Your task to perform on an android device: change notifications settings Image 0: 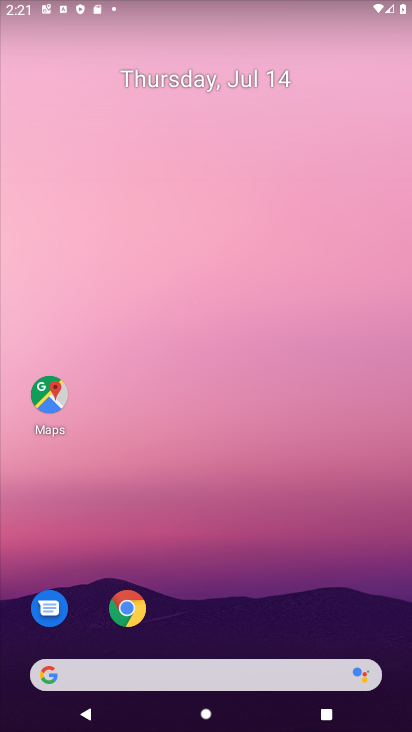
Step 0: drag from (371, 616) to (346, 69)
Your task to perform on an android device: change notifications settings Image 1: 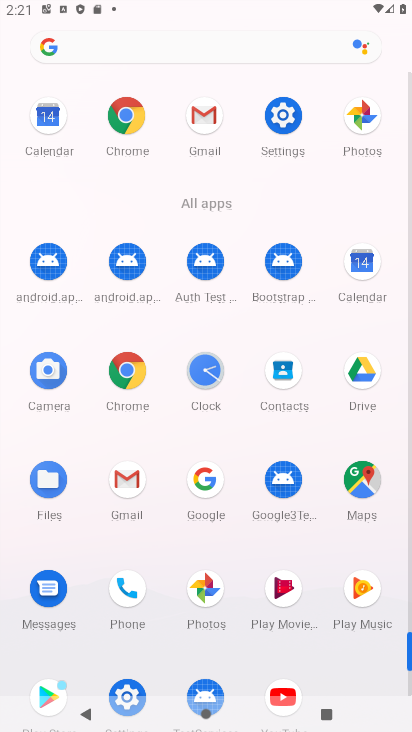
Step 1: click (411, 606)
Your task to perform on an android device: change notifications settings Image 2: 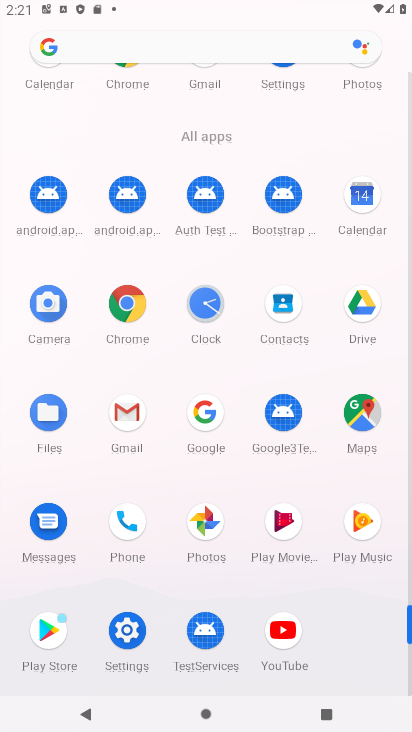
Step 2: click (125, 632)
Your task to perform on an android device: change notifications settings Image 3: 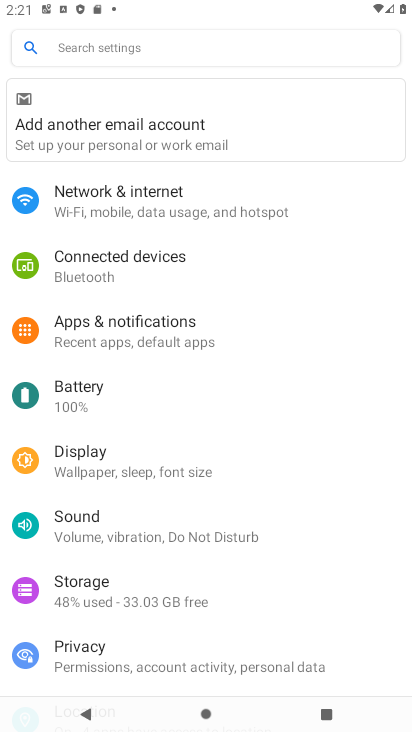
Step 3: click (123, 322)
Your task to perform on an android device: change notifications settings Image 4: 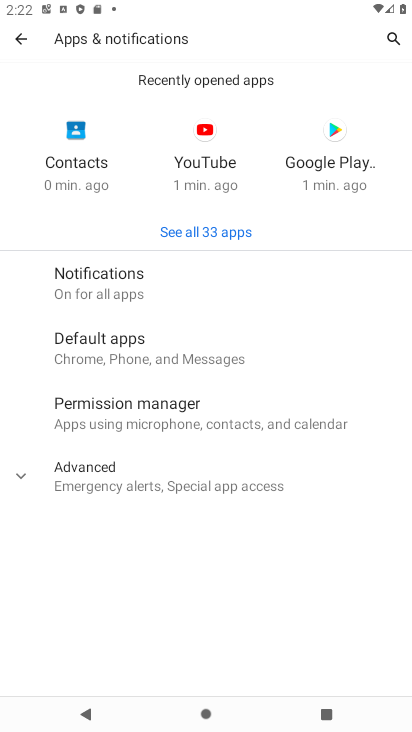
Step 4: click (111, 289)
Your task to perform on an android device: change notifications settings Image 5: 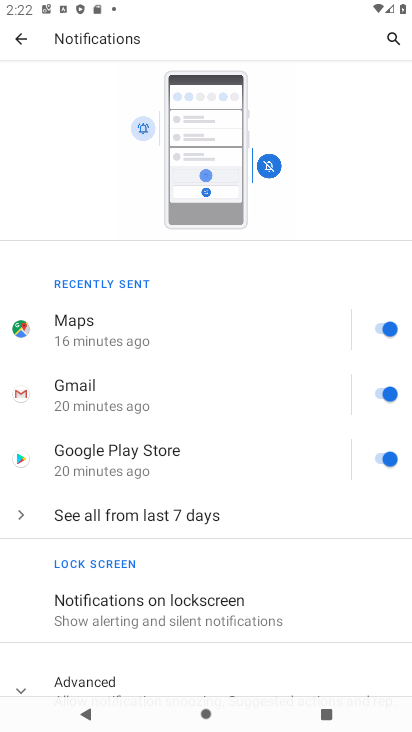
Step 5: drag from (292, 661) to (295, 182)
Your task to perform on an android device: change notifications settings Image 6: 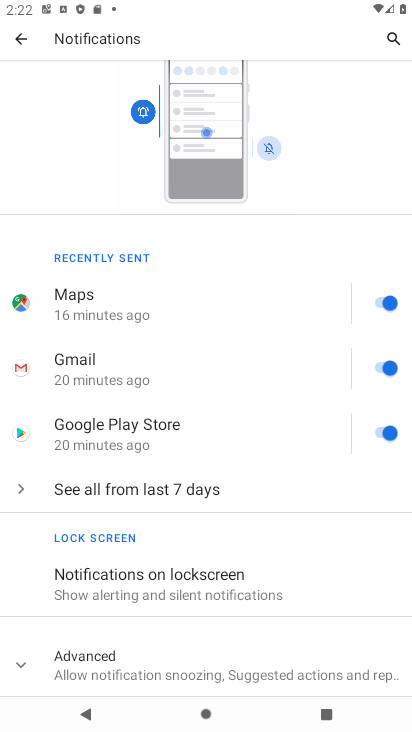
Step 6: click (4, 662)
Your task to perform on an android device: change notifications settings Image 7: 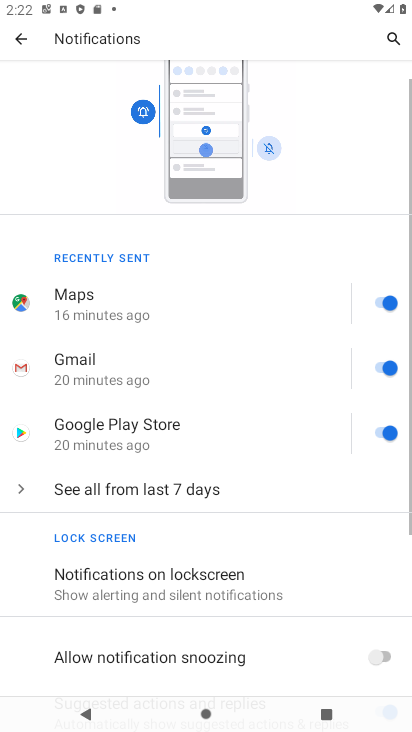
Step 7: drag from (245, 653) to (285, 238)
Your task to perform on an android device: change notifications settings Image 8: 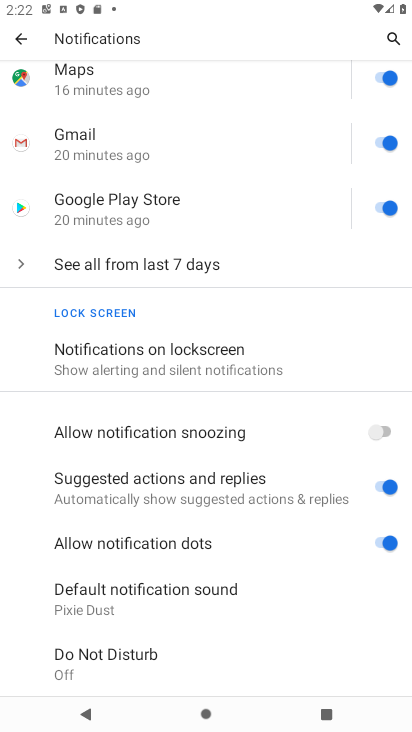
Step 8: click (374, 536)
Your task to perform on an android device: change notifications settings Image 9: 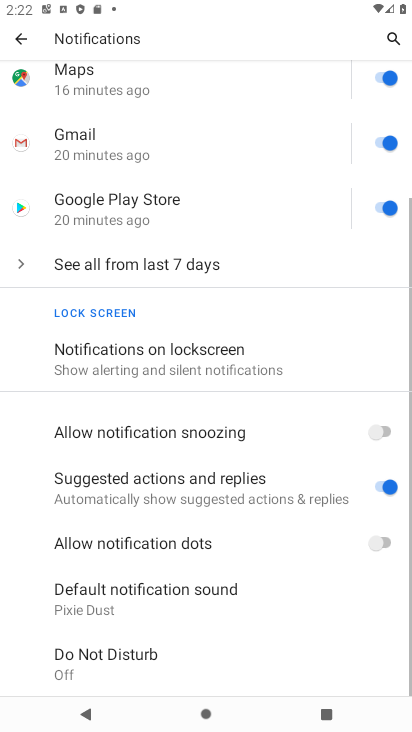
Step 9: click (384, 431)
Your task to perform on an android device: change notifications settings Image 10: 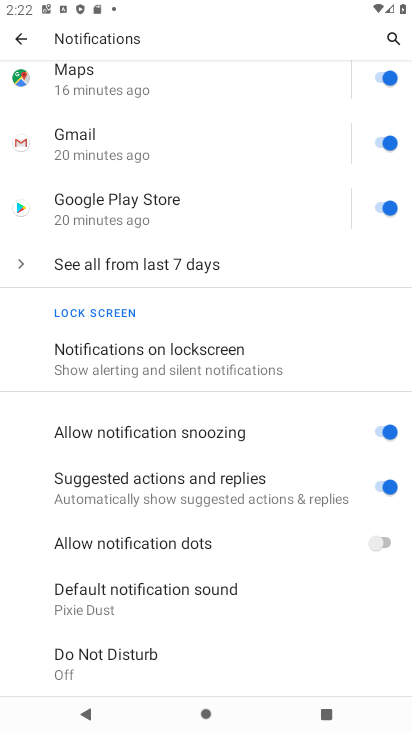
Step 10: task complete